Your task to perform on an android device: Open the calendar and show me this week's events Image 0: 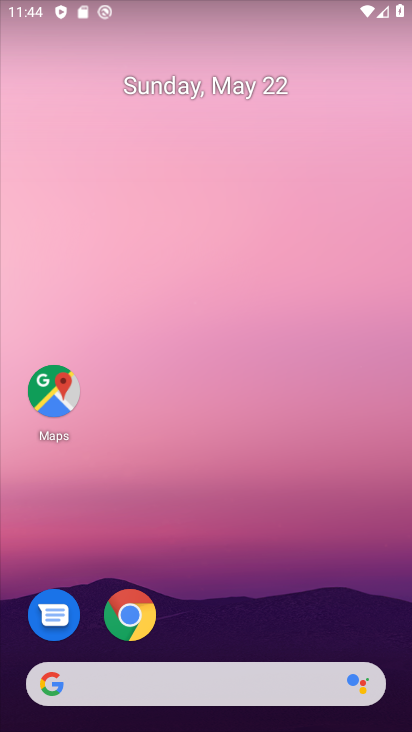
Step 0: drag from (196, 611) to (251, 83)
Your task to perform on an android device: Open the calendar and show me this week's events Image 1: 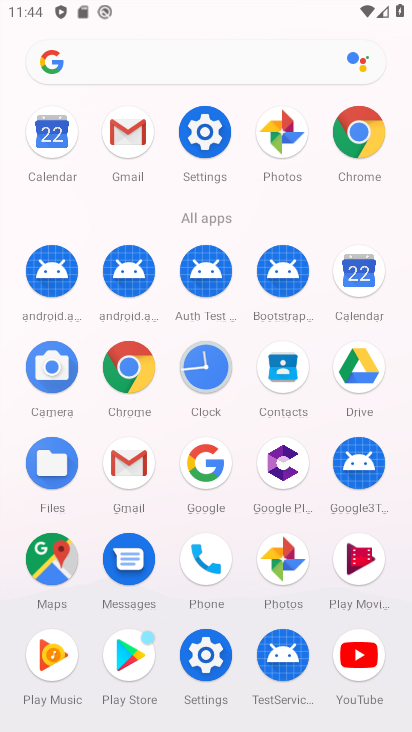
Step 1: click (363, 286)
Your task to perform on an android device: Open the calendar and show me this week's events Image 2: 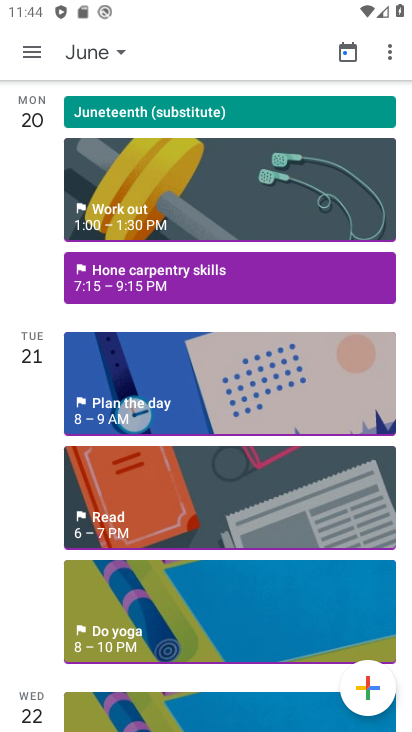
Step 2: click (111, 44)
Your task to perform on an android device: Open the calendar and show me this week's events Image 3: 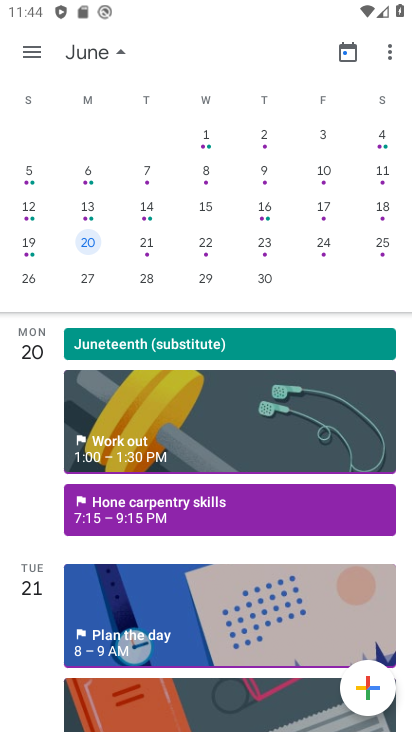
Step 3: drag from (24, 219) to (401, 219)
Your task to perform on an android device: Open the calendar and show me this week's events Image 4: 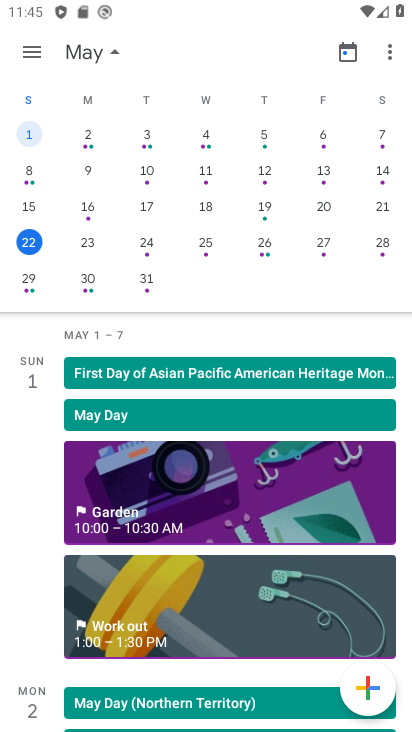
Step 4: click (31, 241)
Your task to perform on an android device: Open the calendar and show me this week's events Image 5: 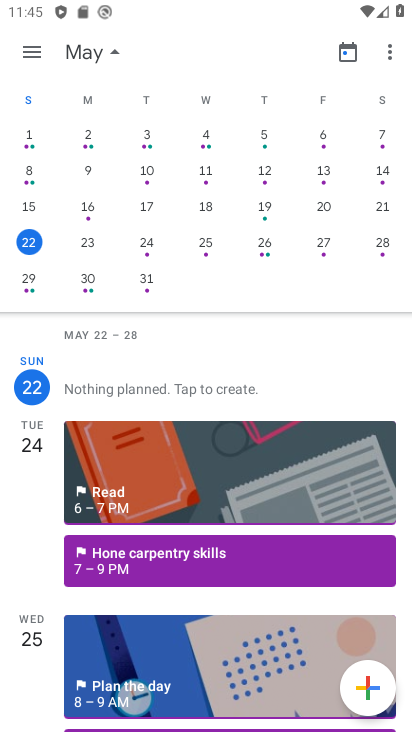
Step 5: drag from (150, 578) to (223, 94)
Your task to perform on an android device: Open the calendar and show me this week's events Image 6: 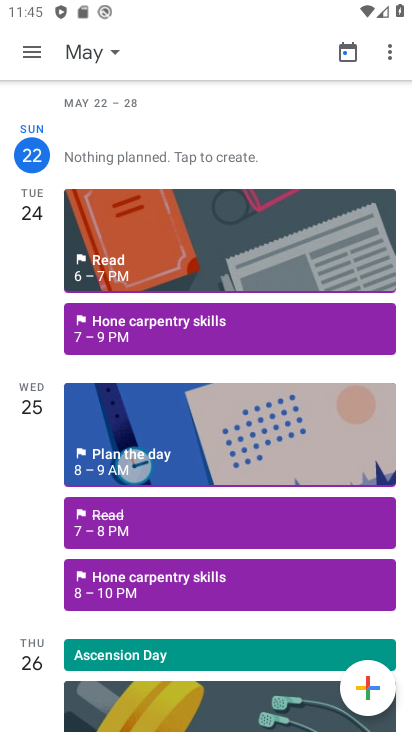
Step 6: click (116, 587)
Your task to perform on an android device: Open the calendar and show me this week's events Image 7: 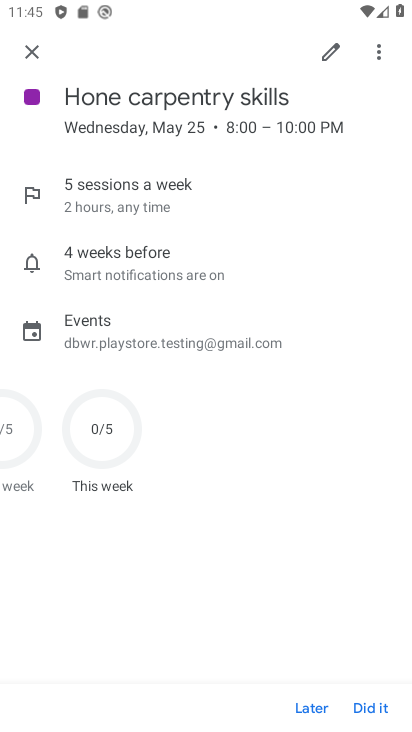
Step 7: task complete